Your task to perform on an android device: toggle data saver in the chrome app Image 0: 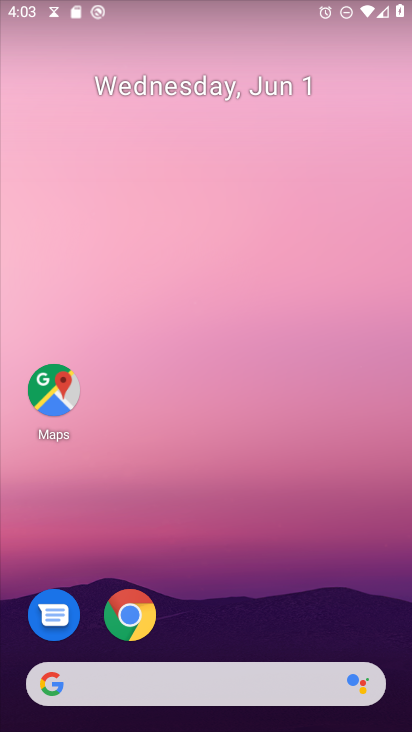
Step 0: press home button
Your task to perform on an android device: toggle data saver in the chrome app Image 1: 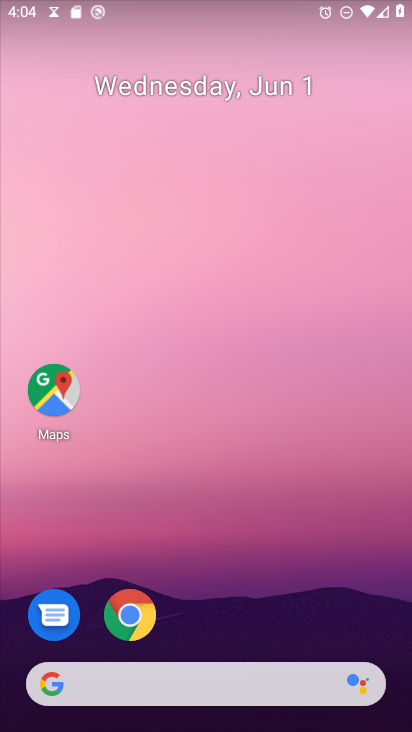
Step 1: drag from (212, 638) to (241, 209)
Your task to perform on an android device: toggle data saver in the chrome app Image 2: 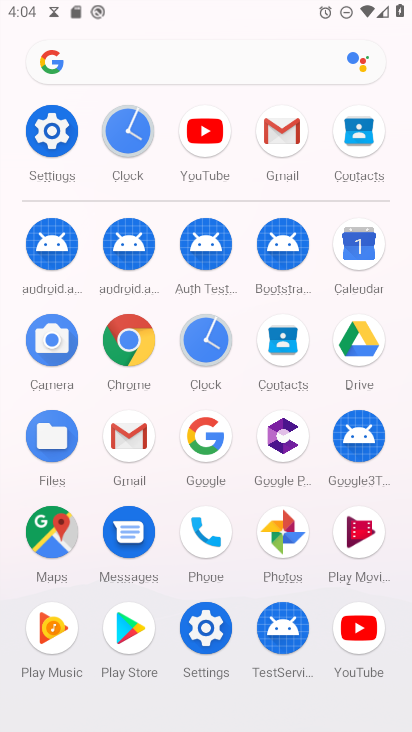
Step 2: click (132, 335)
Your task to perform on an android device: toggle data saver in the chrome app Image 3: 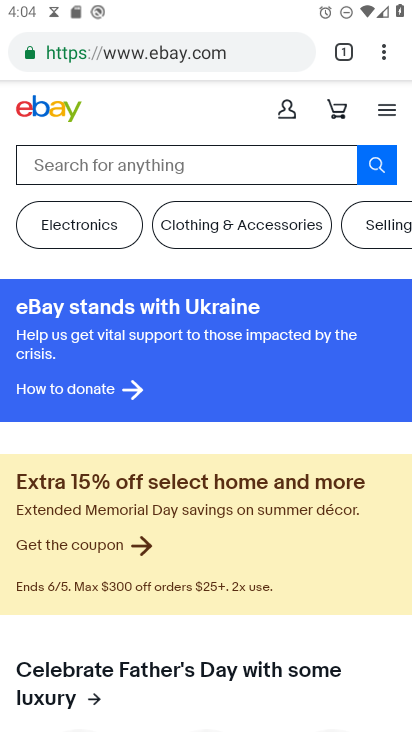
Step 3: click (383, 47)
Your task to perform on an android device: toggle data saver in the chrome app Image 4: 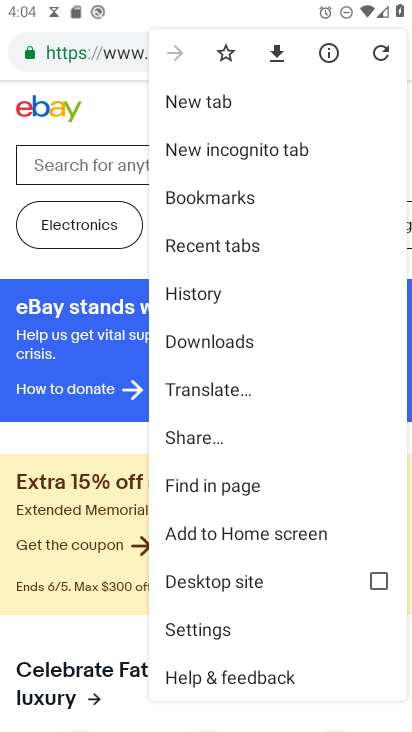
Step 4: click (256, 624)
Your task to perform on an android device: toggle data saver in the chrome app Image 5: 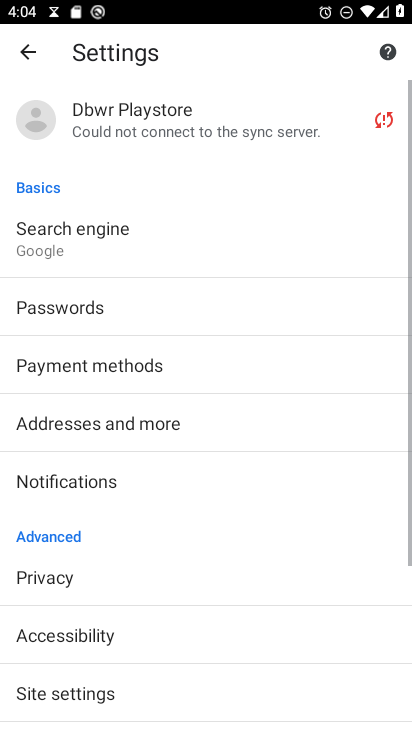
Step 5: drag from (135, 681) to (185, 108)
Your task to perform on an android device: toggle data saver in the chrome app Image 6: 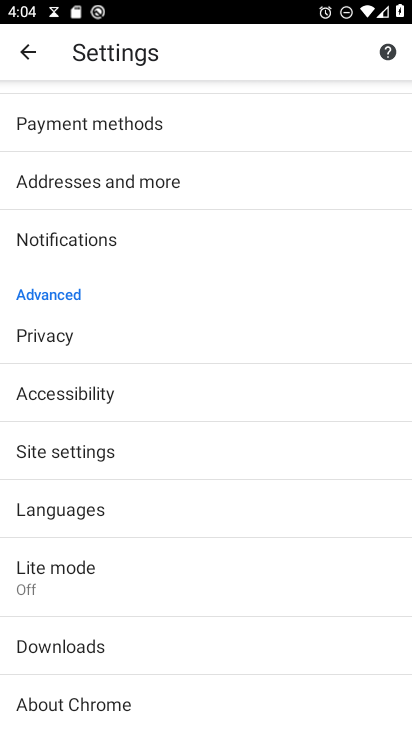
Step 6: click (120, 573)
Your task to perform on an android device: toggle data saver in the chrome app Image 7: 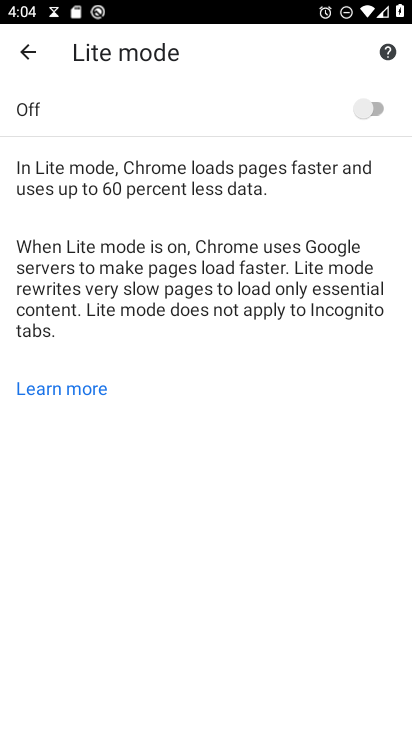
Step 7: click (379, 99)
Your task to perform on an android device: toggle data saver in the chrome app Image 8: 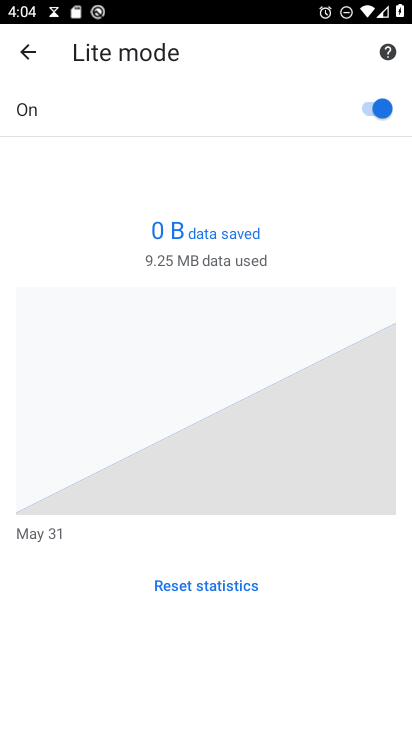
Step 8: task complete